Your task to perform on an android device: turn off javascript in the chrome app Image 0: 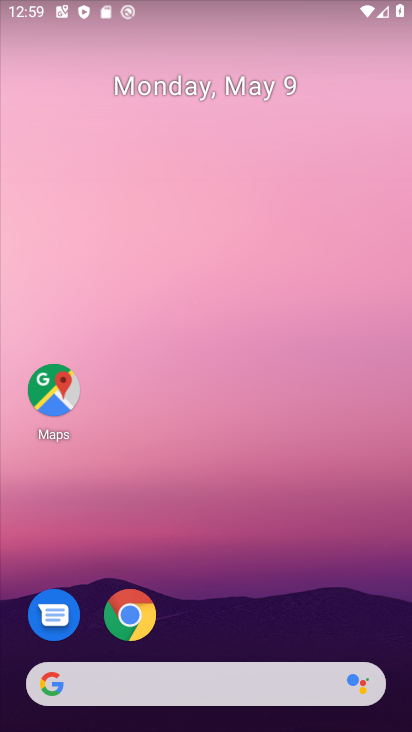
Step 0: click (130, 618)
Your task to perform on an android device: turn off javascript in the chrome app Image 1: 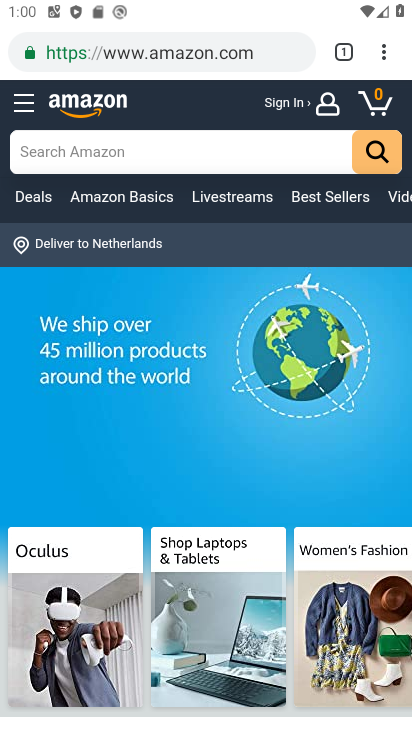
Step 1: click (383, 53)
Your task to perform on an android device: turn off javascript in the chrome app Image 2: 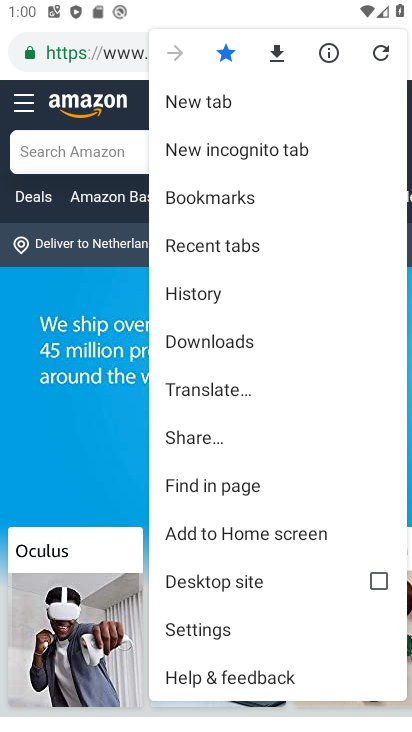
Step 2: click (198, 629)
Your task to perform on an android device: turn off javascript in the chrome app Image 3: 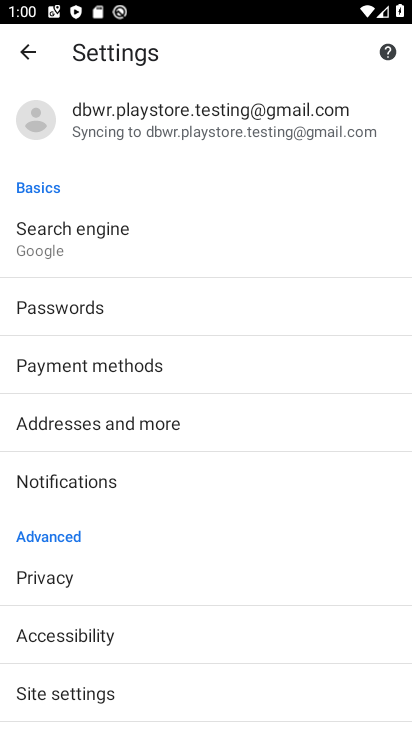
Step 3: drag from (161, 554) to (196, 423)
Your task to perform on an android device: turn off javascript in the chrome app Image 4: 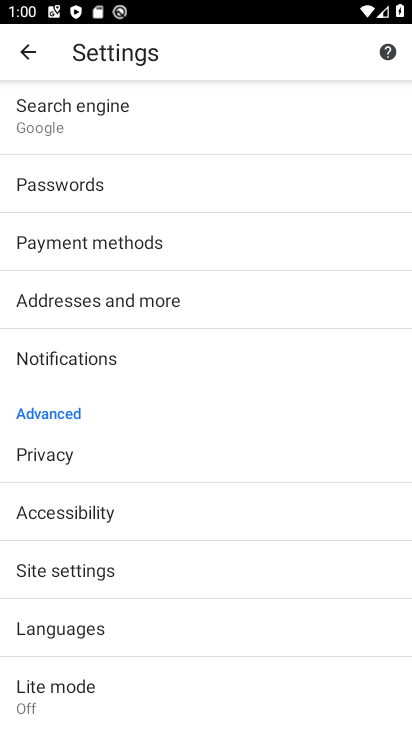
Step 4: click (95, 570)
Your task to perform on an android device: turn off javascript in the chrome app Image 5: 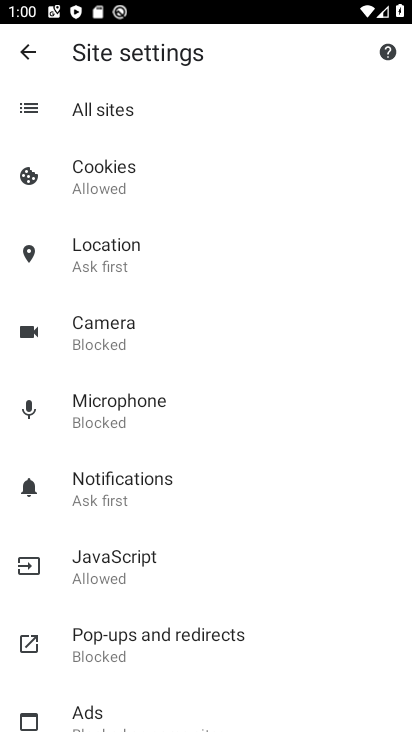
Step 5: click (99, 568)
Your task to perform on an android device: turn off javascript in the chrome app Image 6: 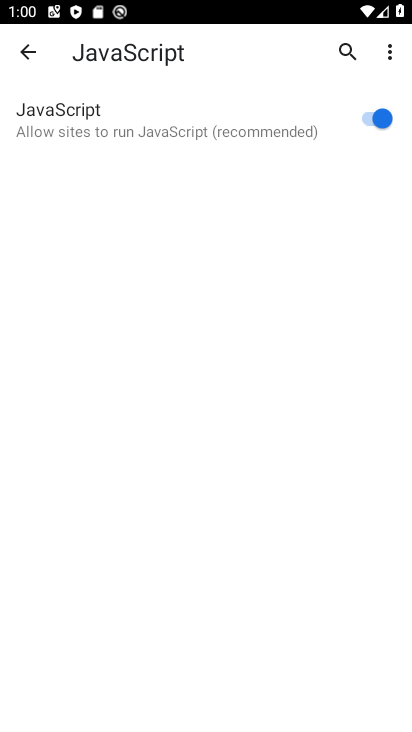
Step 6: click (380, 118)
Your task to perform on an android device: turn off javascript in the chrome app Image 7: 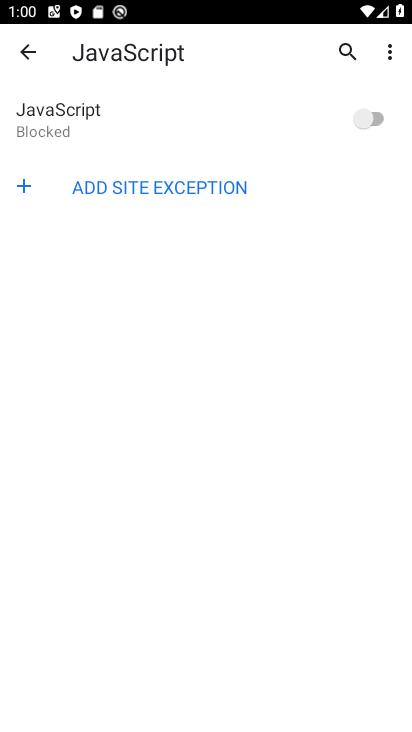
Step 7: task complete